Your task to perform on an android device: Do I have any events this weekend? Image 0: 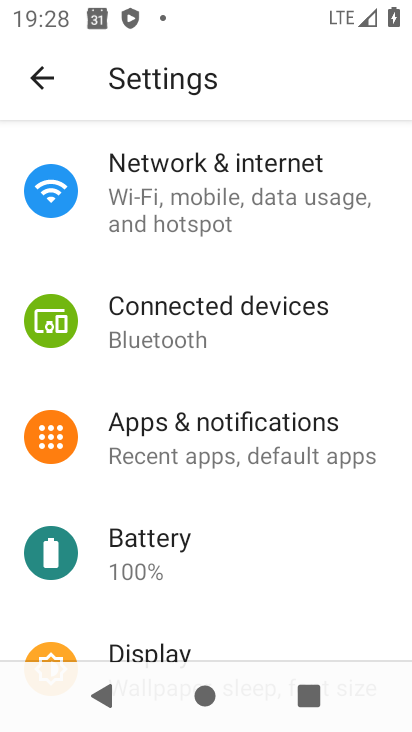
Step 0: press home button
Your task to perform on an android device: Do I have any events this weekend? Image 1: 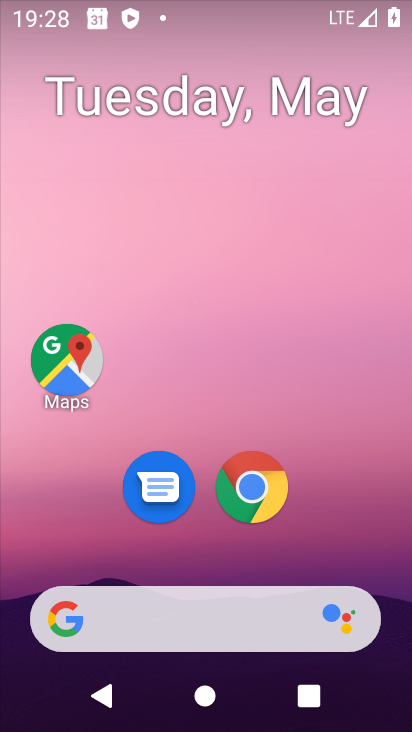
Step 1: drag from (335, 505) to (206, 5)
Your task to perform on an android device: Do I have any events this weekend? Image 2: 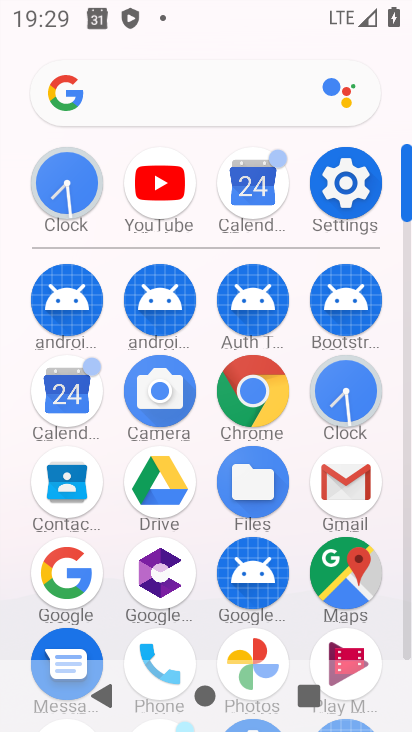
Step 2: click (69, 395)
Your task to perform on an android device: Do I have any events this weekend? Image 3: 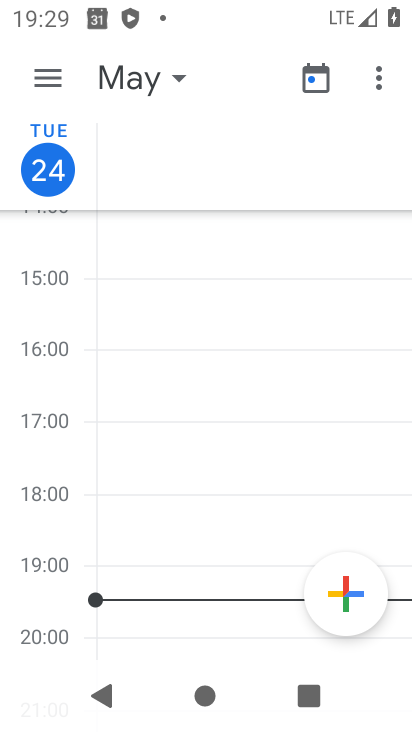
Step 3: click (46, 66)
Your task to perform on an android device: Do I have any events this weekend? Image 4: 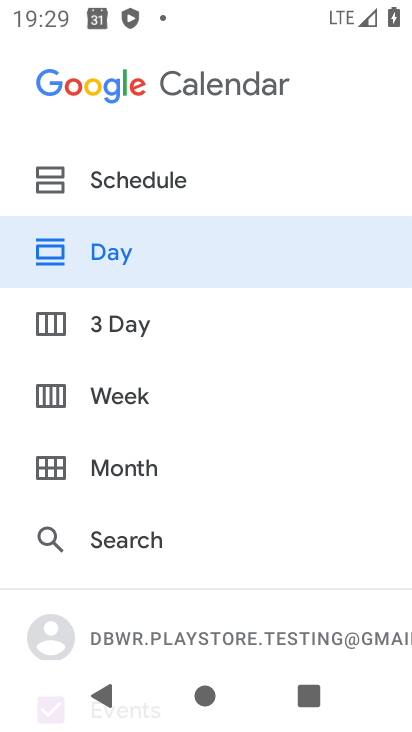
Step 4: click (108, 391)
Your task to perform on an android device: Do I have any events this weekend? Image 5: 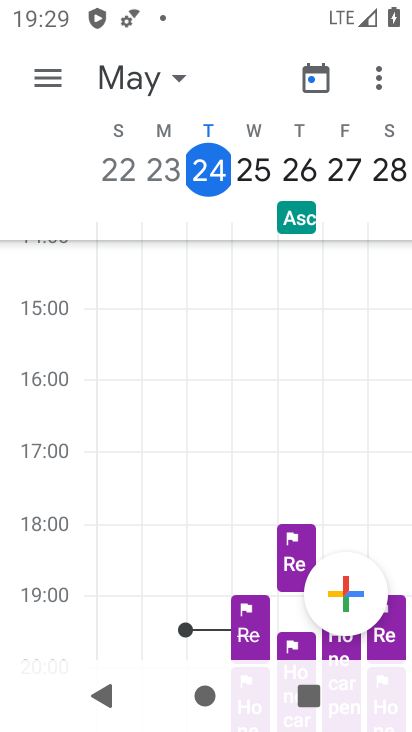
Step 5: task complete